Your task to perform on an android device: Find coffee shops on Maps Image 0: 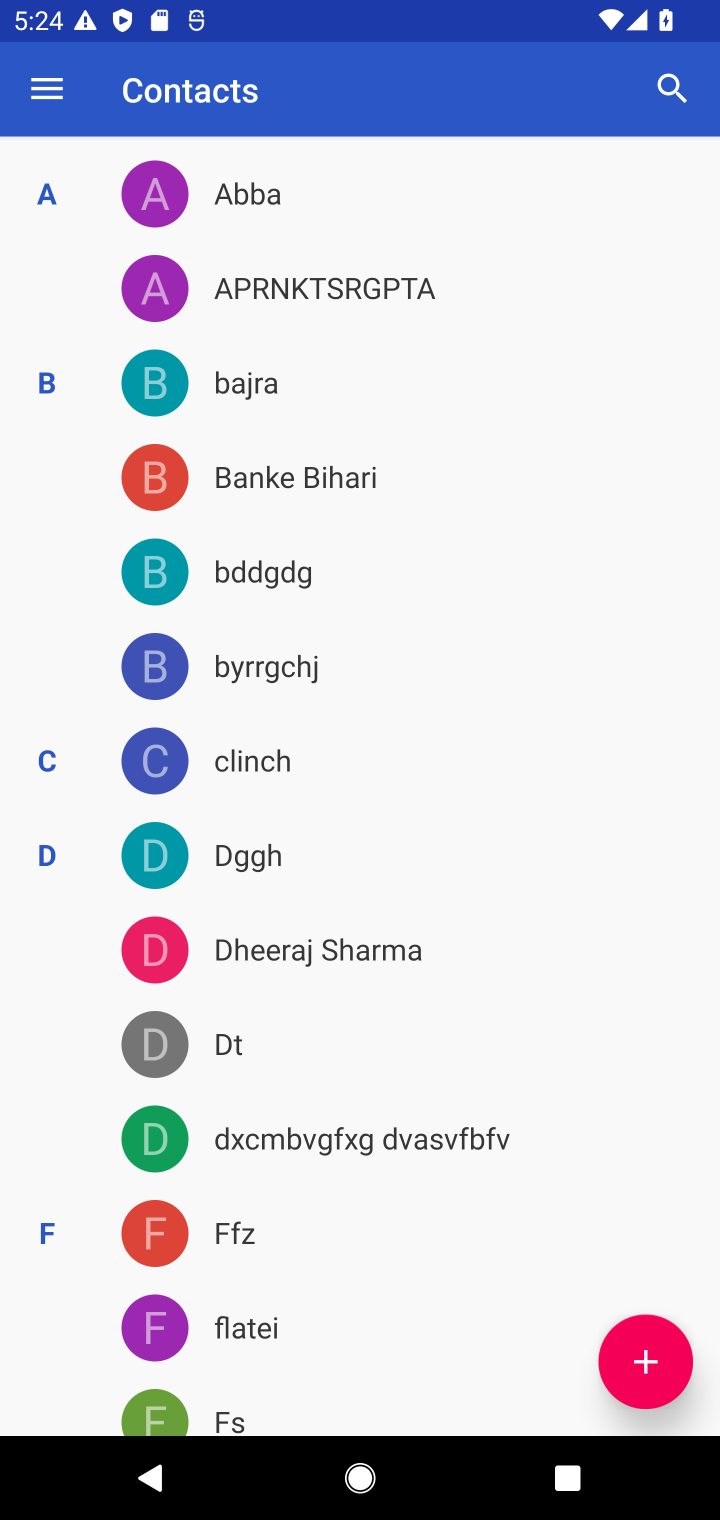
Step 0: press home button
Your task to perform on an android device: Find coffee shops on Maps Image 1: 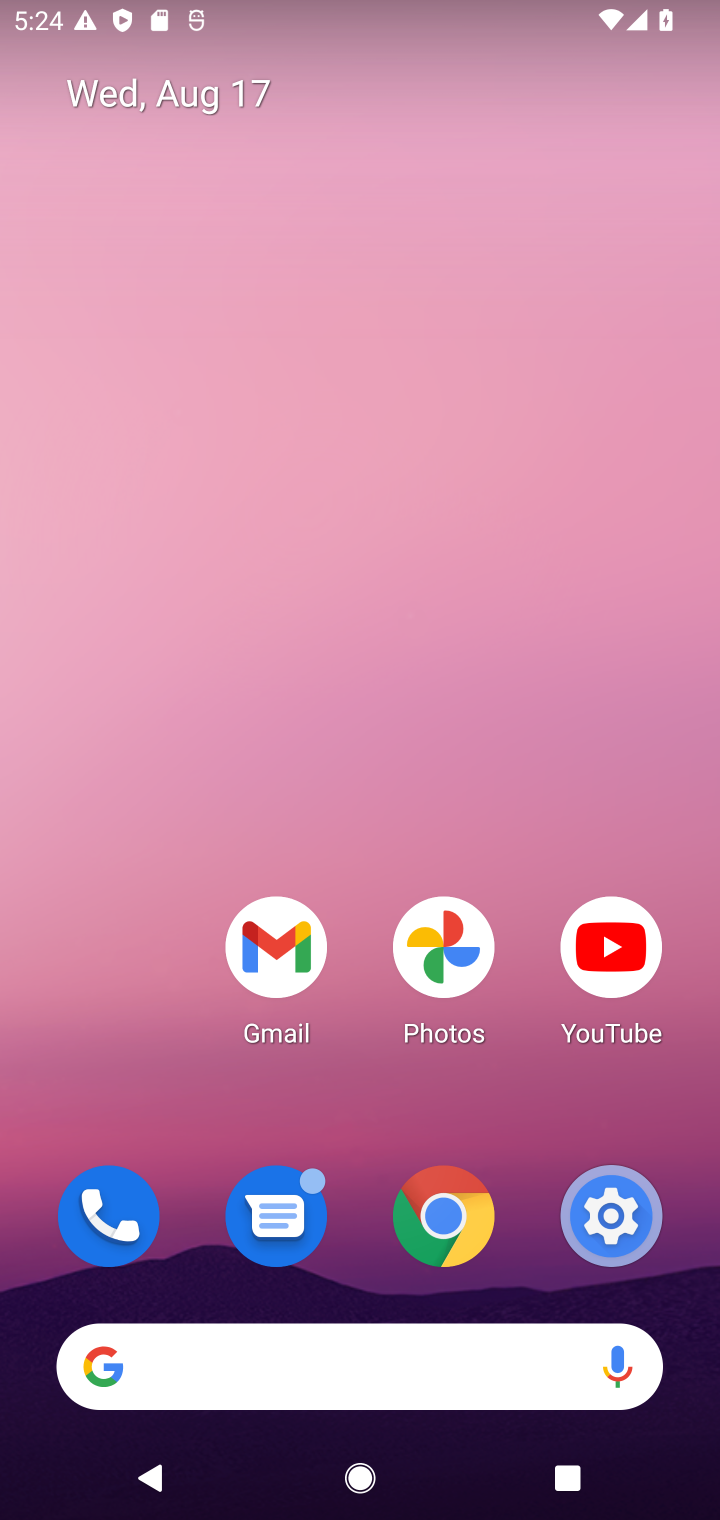
Step 1: drag from (352, 1073) to (304, 121)
Your task to perform on an android device: Find coffee shops on Maps Image 2: 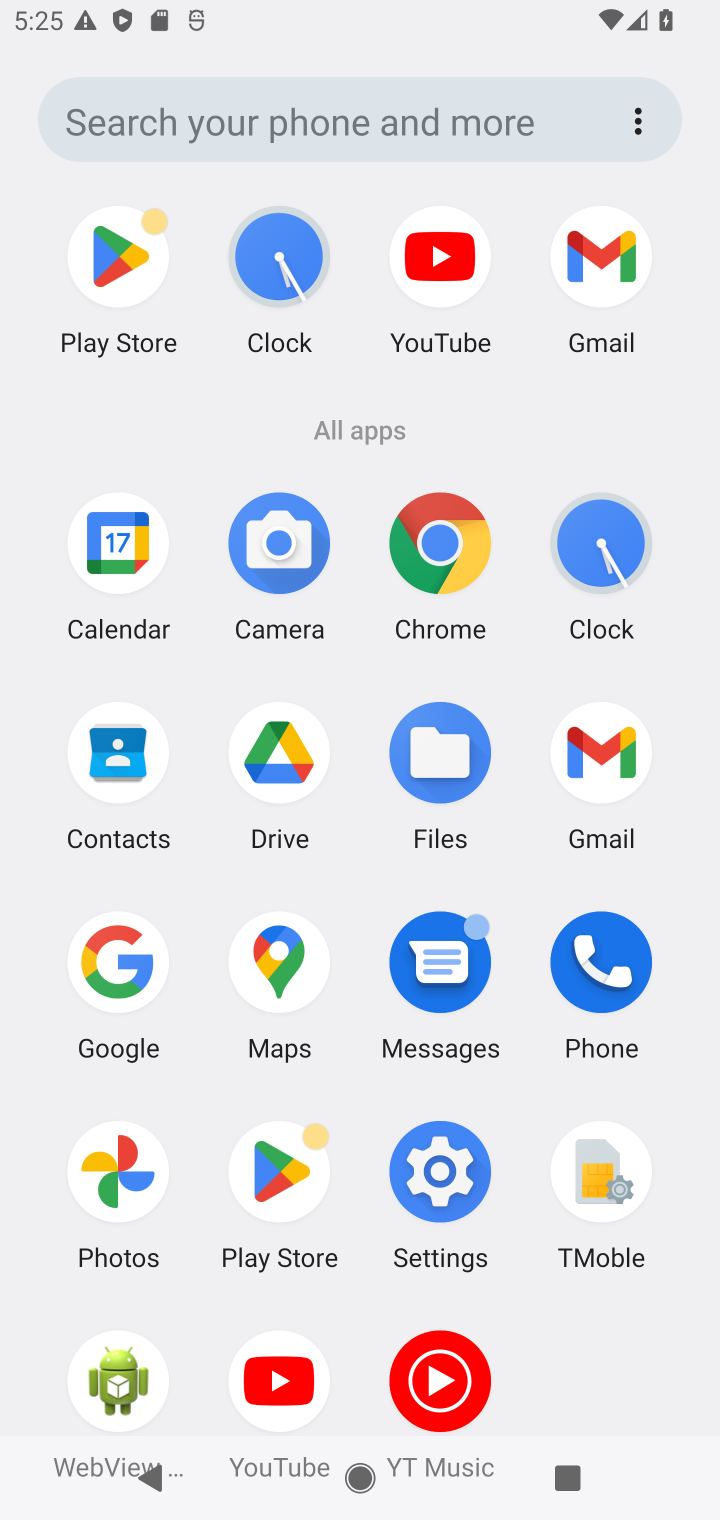
Step 2: click (289, 953)
Your task to perform on an android device: Find coffee shops on Maps Image 3: 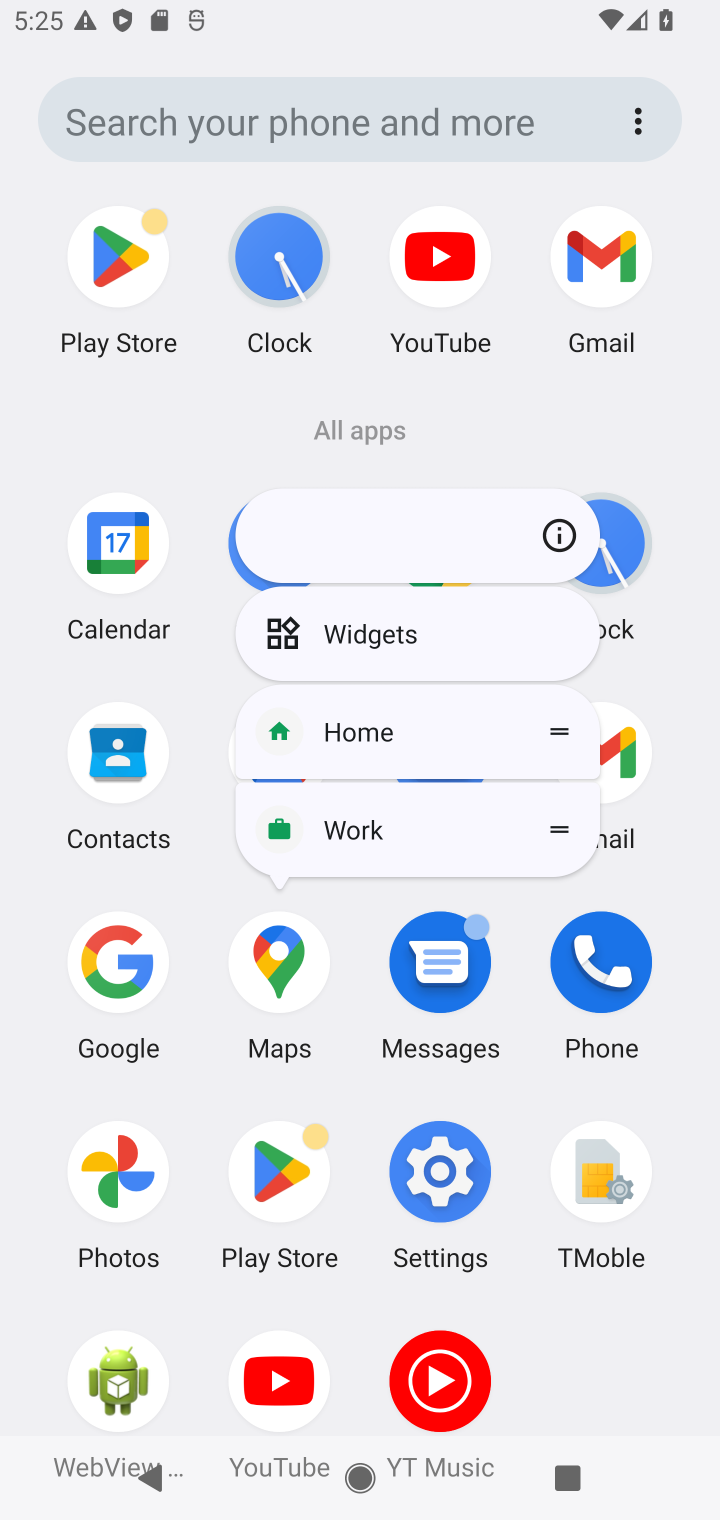
Step 3: click (271, 945)
Your task to perform on an android device: Find coffee shops on Maps Image 4: 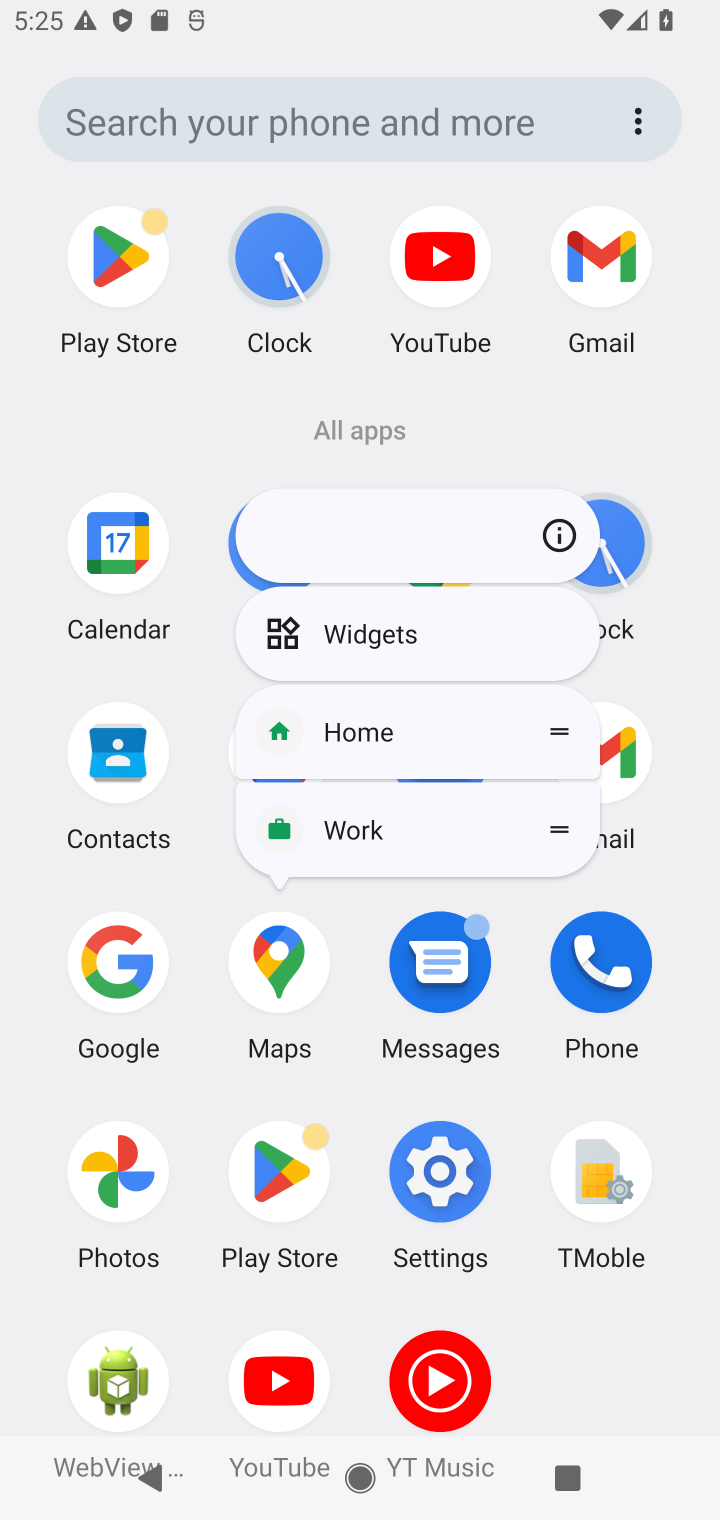
Step 4: click (296, 953)
Your task to perform on an android device: Find coffee shops on Maps Image 5: 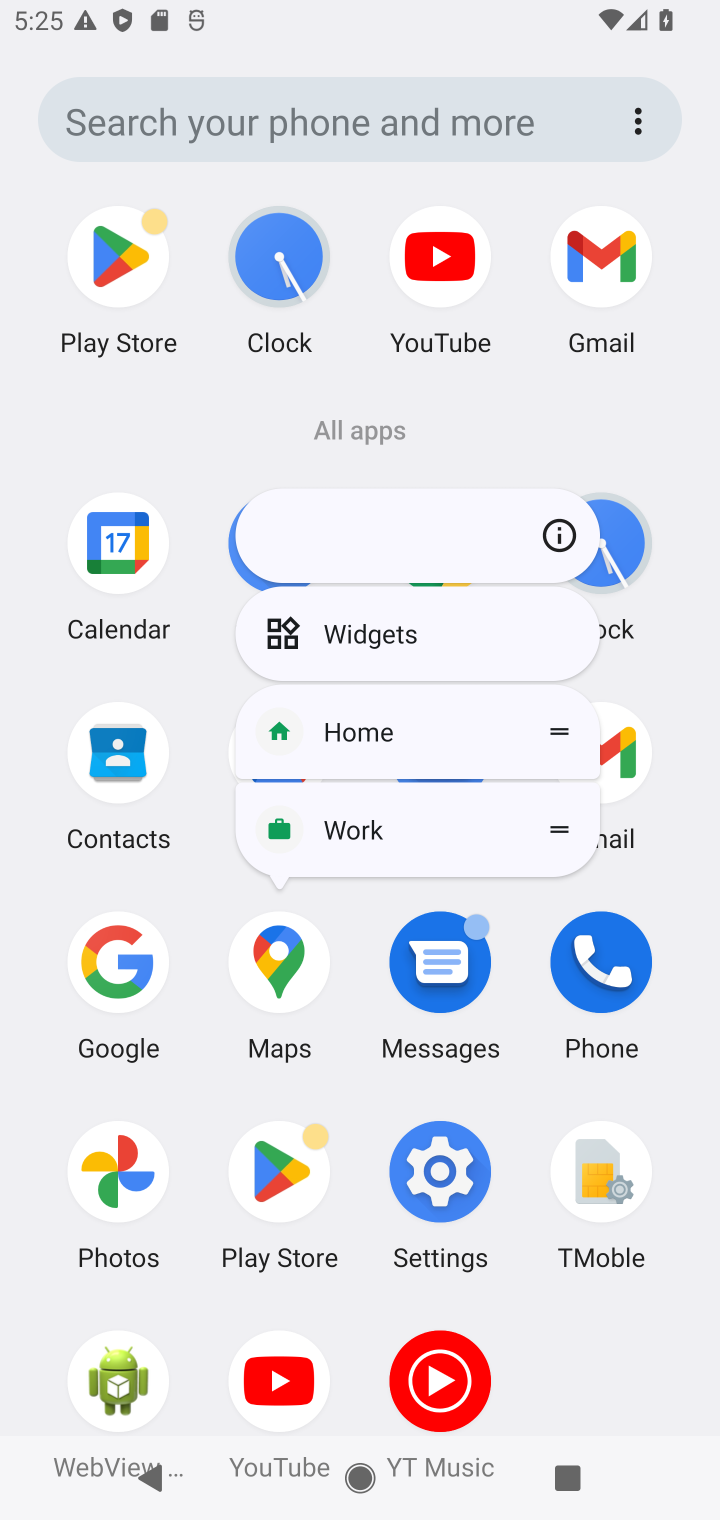
Step 5: click (296, 953)
Your task to perform on an android device: Find coffee shops on Maps Image 6: 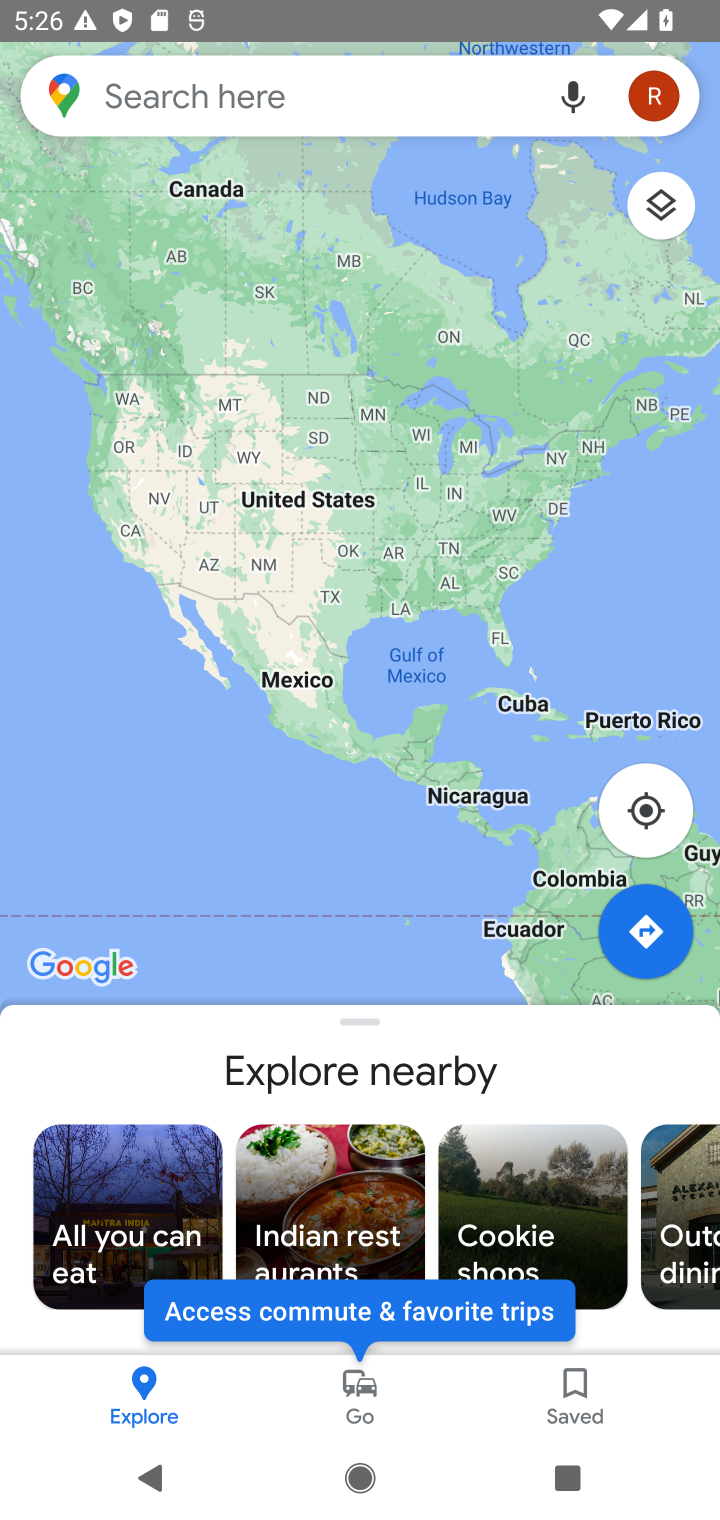
Step 6: click (355, 87)
Your task to perform on an android device: Find coffee shops on Maps Image 7: 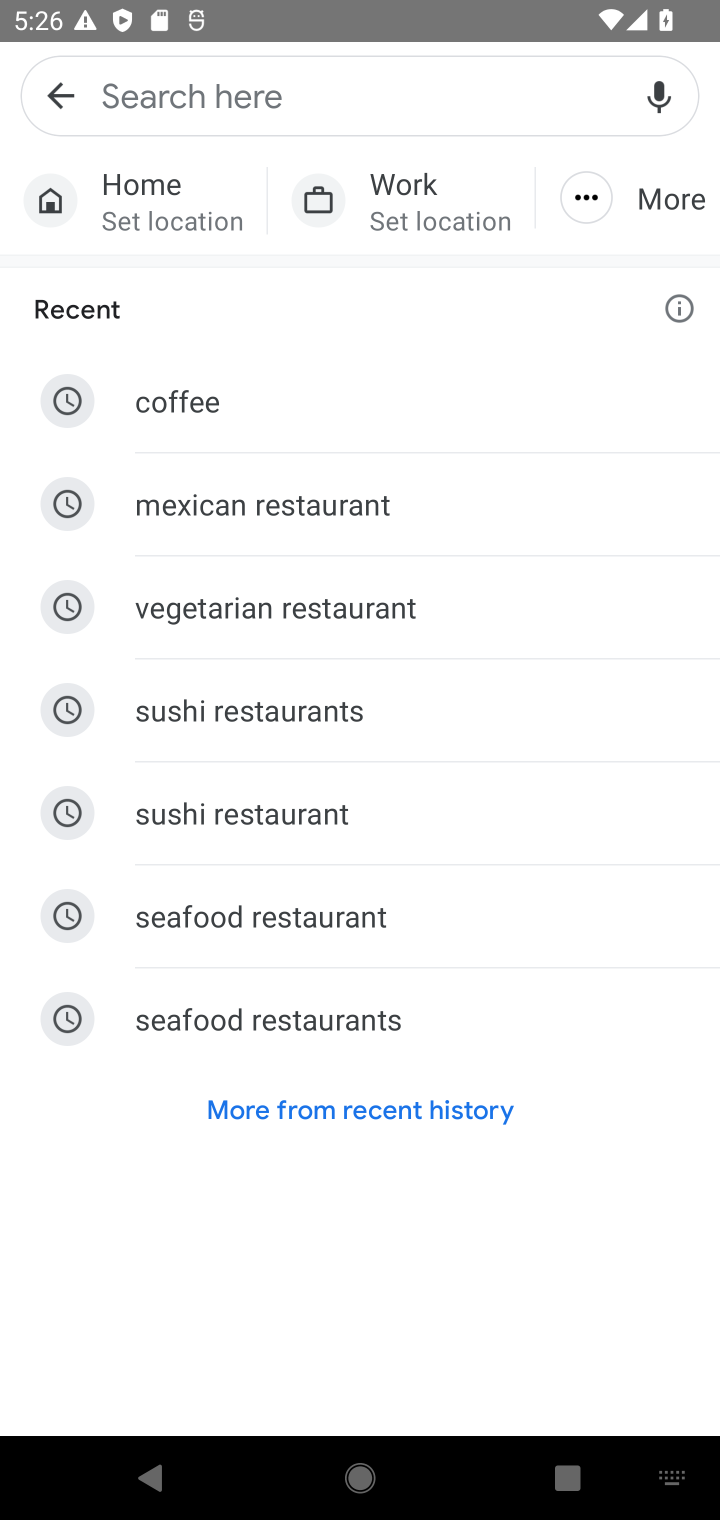
Step 7: type " coffee shops"
Your task to perform on an android device: Find coffee shops on Maps Image 8: 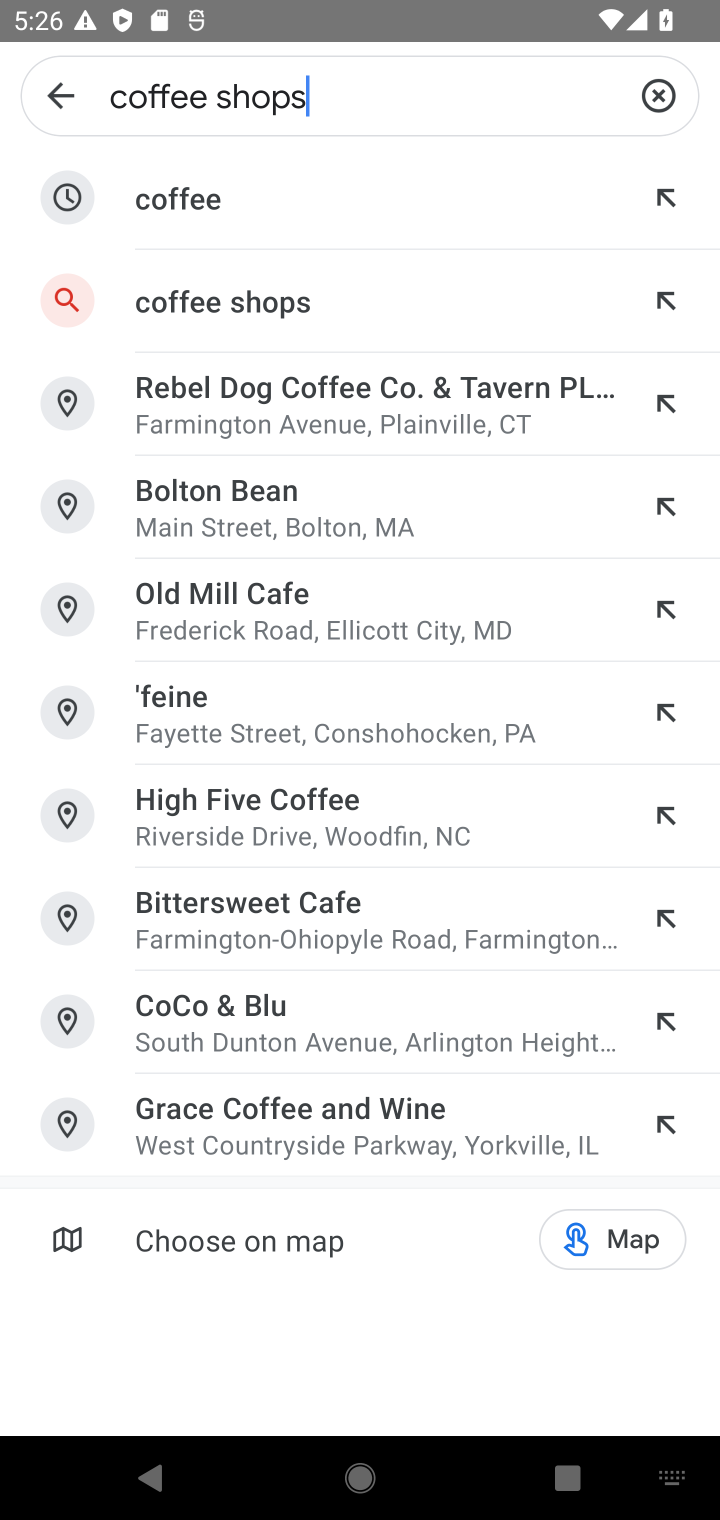
Step 8: click (207, 297)
Your task to perform on an android device: Find coffee shops on Maps Image 9: 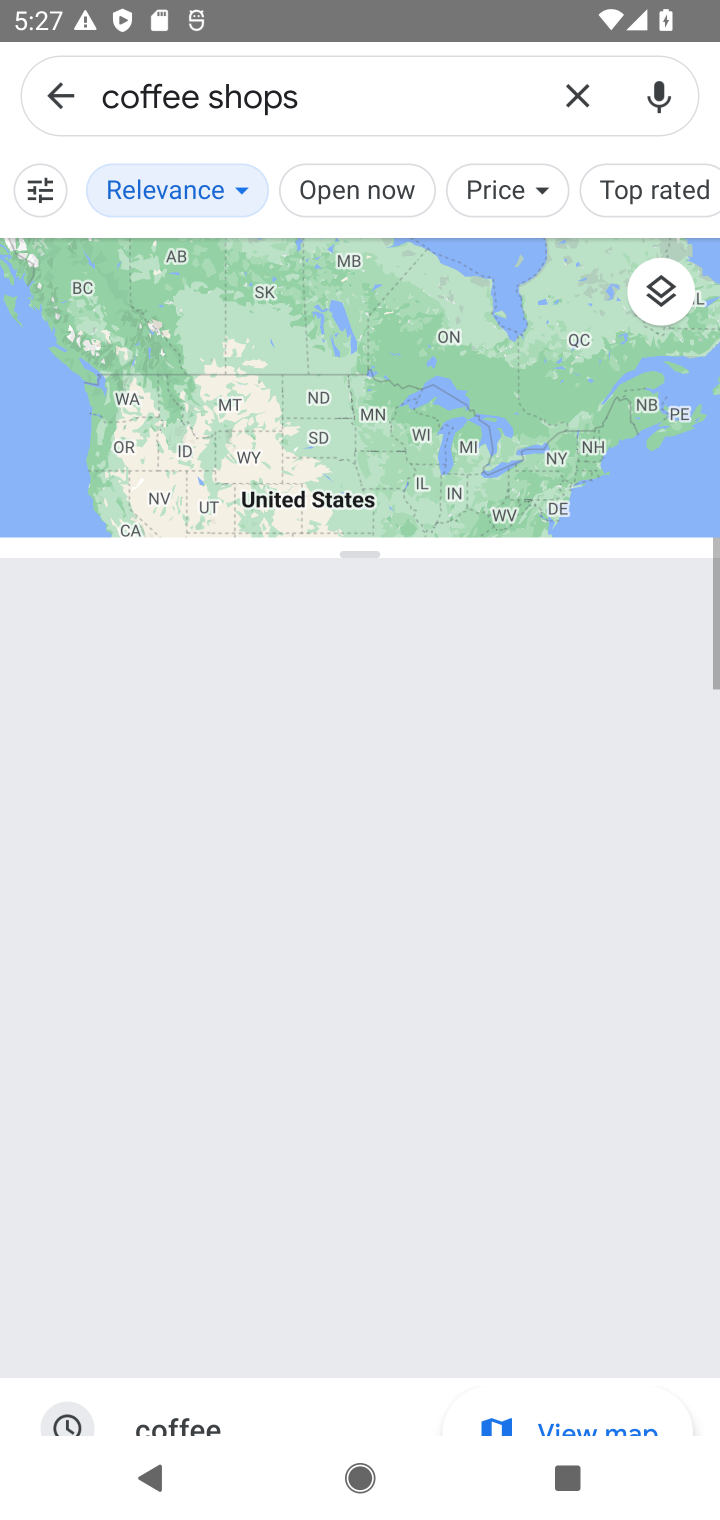
Step 9: task complete